Your task to perform on an android device: Open wifi settings Image 0: 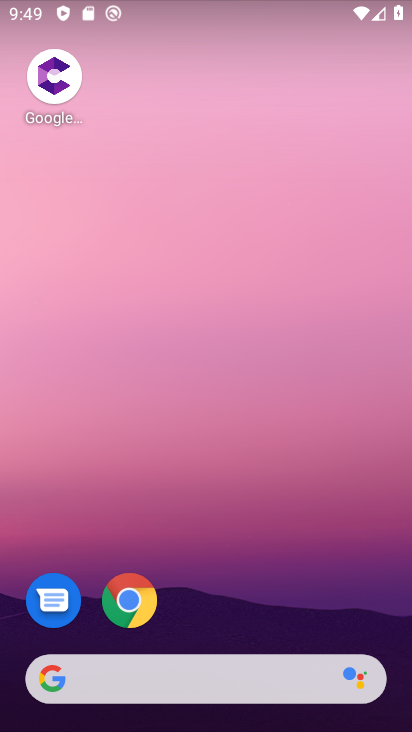
Step 0: drag from (120, 698) to (110, 37)
Your task to perform on an android device: Open wifi settings Image 1: 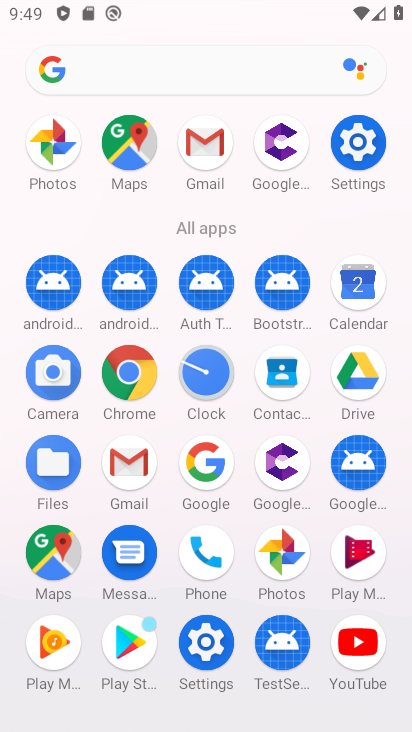
Step 1: click (340, 146)
Your task to perform on an android device: Open wifi settings Image 2: 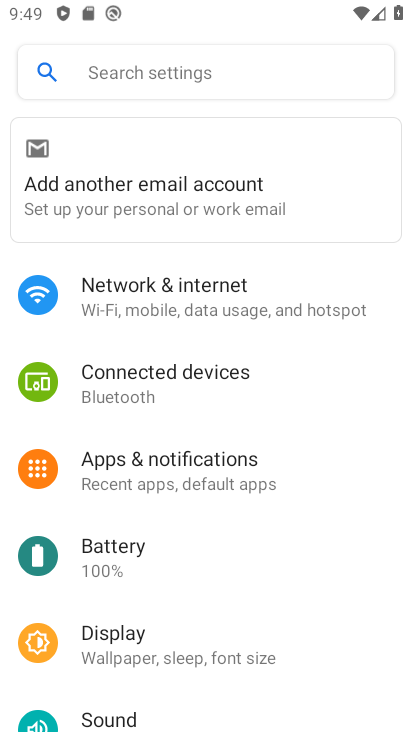
Step 2: click (195, 291)
Your task to perform on an android device: Open wifi settings Image 3: 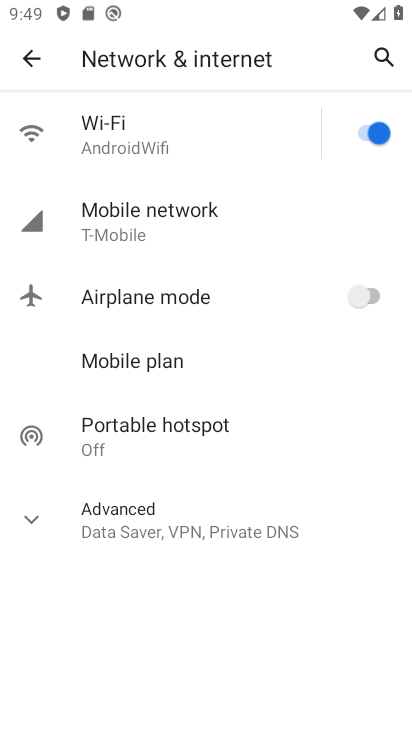
Step 3: click (141, 126)
Your task to perform on an android device: Open wifi settings Image 4: 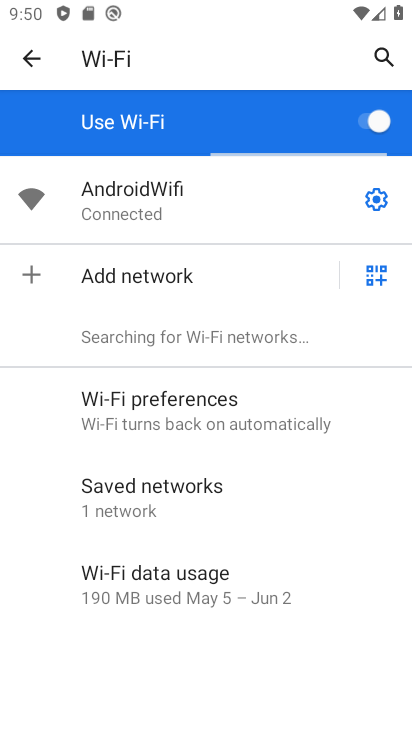
Step 4: task complete